Your task to perform on an android device: Open the phone app and click the voicemail tab. Image 0: 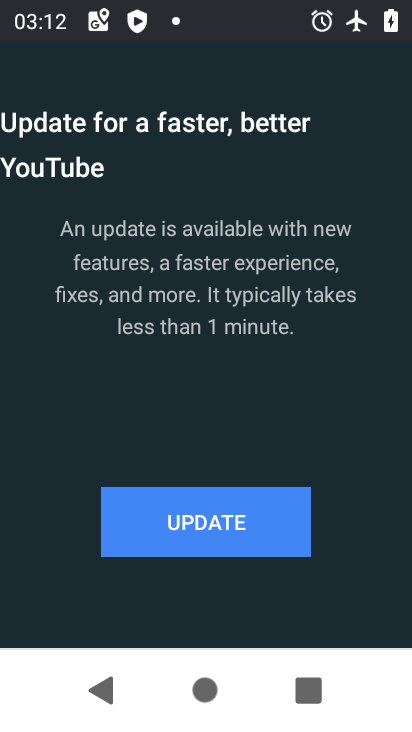
Step 0: press home button
Your task to perform on an android device: Open the phone app and click the voicemail tab. Image 1: 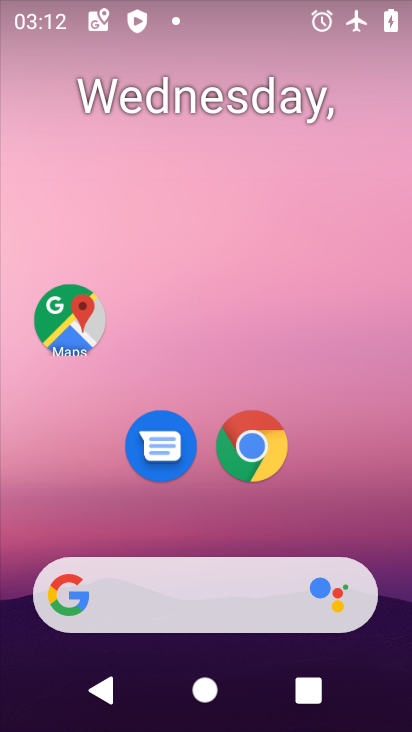
Step 1: drag from (205, 527) to (230, 219)
Your task to perform on an android device: Open the phone app and click the voicemail tab. Image 2: 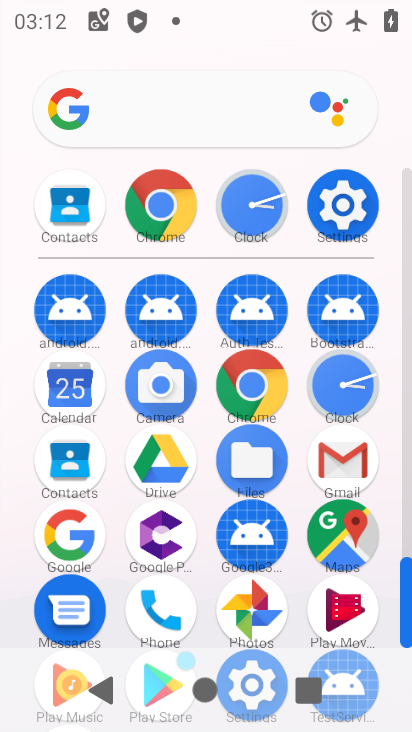
Step 2: click (162, 595)
Your task to perform on an android device: Open the phone app and click the voicemail tab. Image 3: 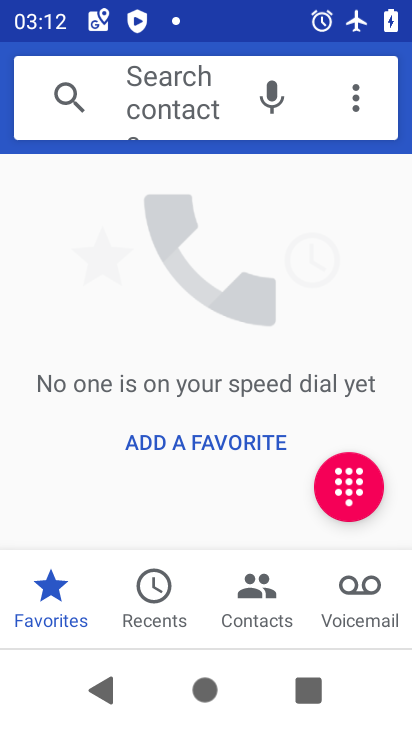
Step 3: click (352, 604)
Your task to perform on an android device: Open the phone app and click the voicemail tab. Image 4: 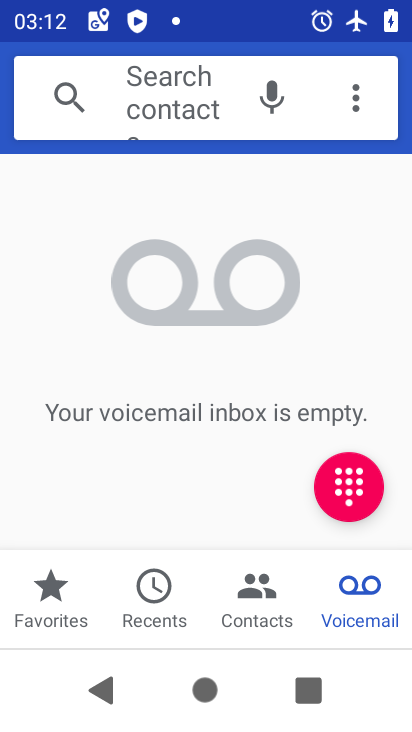
Step 4: task complete